Your task to perform on an android device: What's the weather today? Image 0: 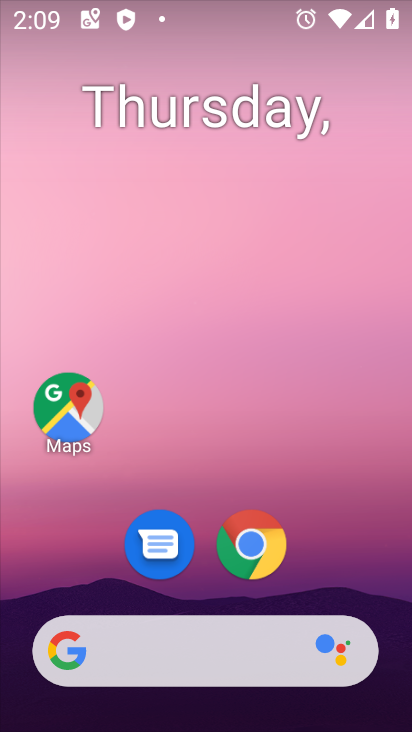
Step 0: drag from (323, 575) to (364, 81)
Your task to perform on an android device: What's the weather today? Image 1: 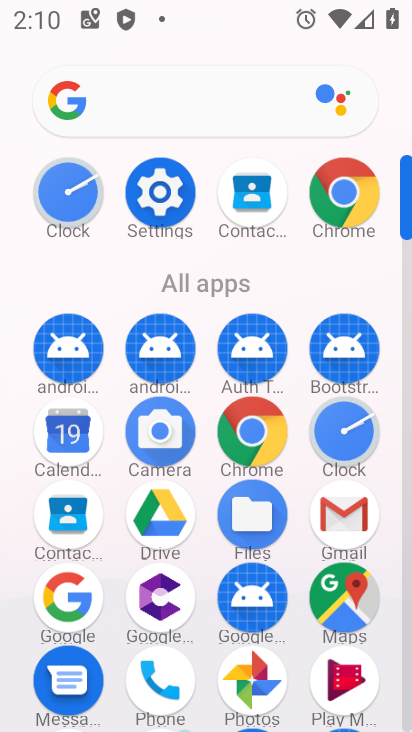
Step 1: drag from (255, 563) to (307, 179)
Your task to perform on an android device: What's the weather today? Image 2: 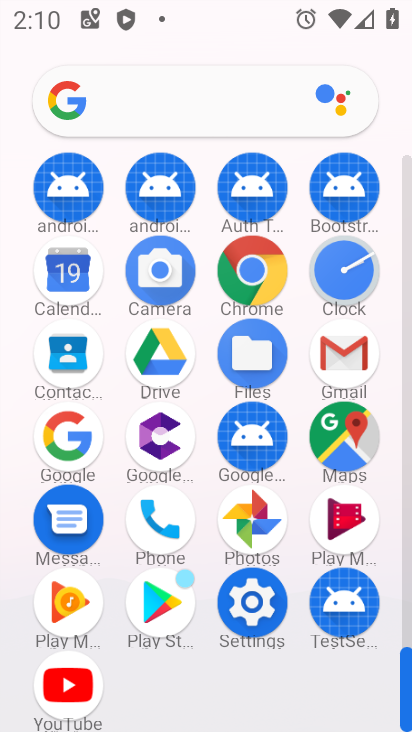
Step 2: click (77, 447)
Your task to perform on an android device: What's the weather today? Image 3: 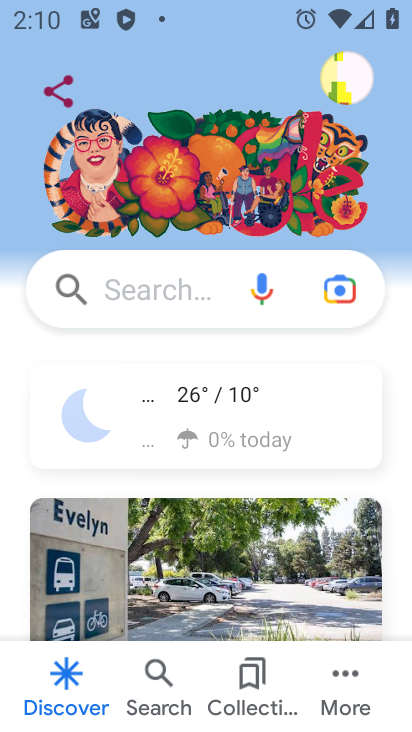
Step 3: task complete